Your task to perform on an android device: check google app version Image 0: 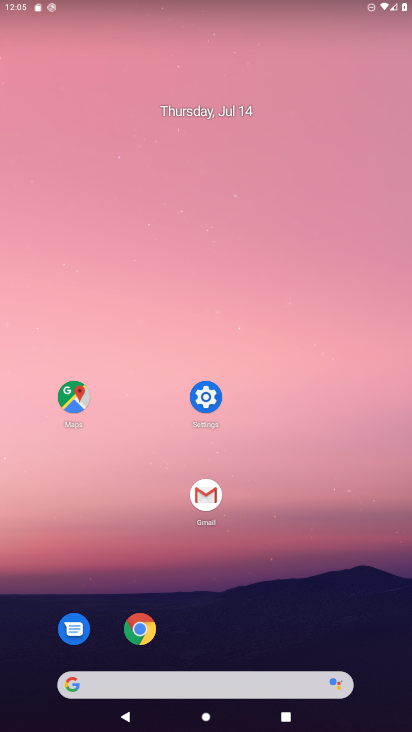
Step 0: drag from (387, 694) to (302, 60)
Your task to perform on an android device: check google app version Image 1: 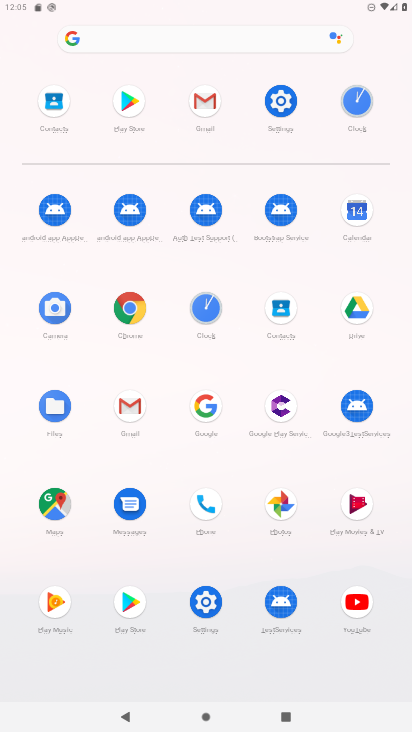
Step 1: click (199, 409)
Your task to perform on an android device: check google app version Image 2: 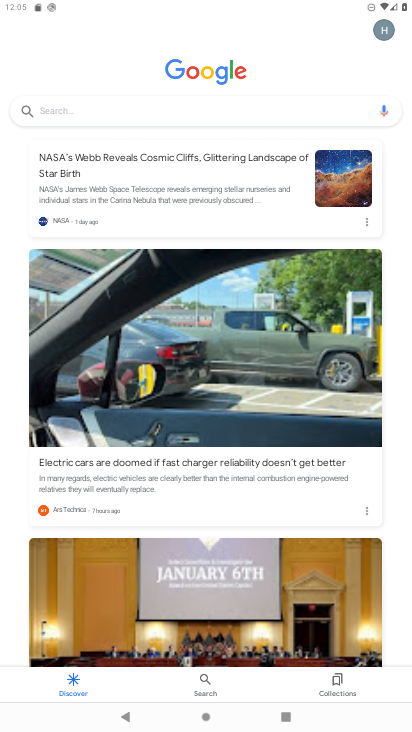
Step 2: click (331, 679)
Your task to perform on an android device: check google app version Image 3: 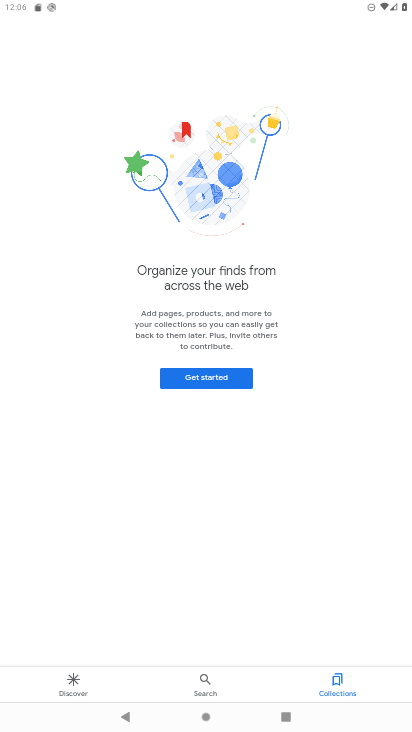
Step 3: task complete